Your task to perform on an android device: add a label to a message in the gmail app Image 0: 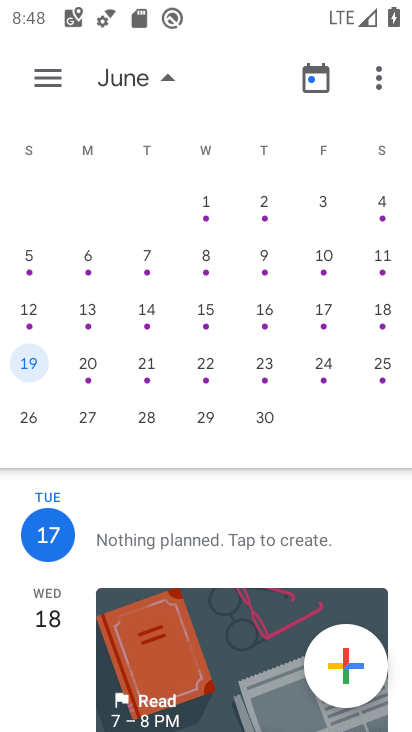
Step 0: press home button
Your task to perform on an android device: add a label to a message in the gmail app Image 1: 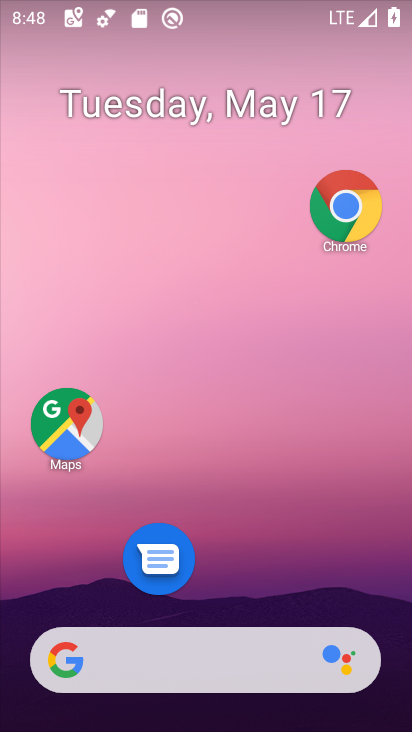
Step 1: drag from (213, 630) to (249, 229)
Your task to perform on an android device: add a label to a message in the gmail app Image 2: 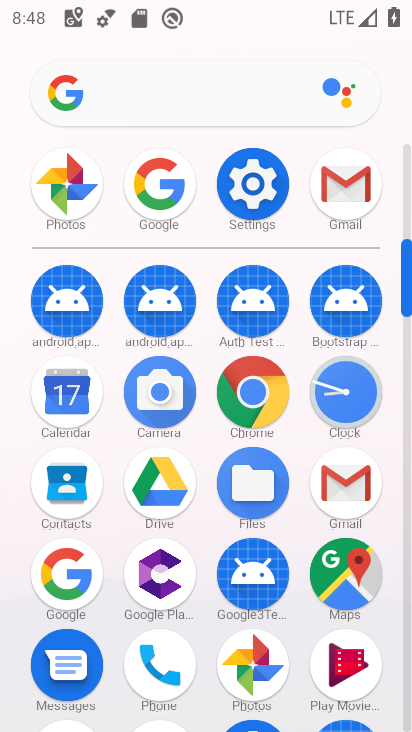
Step 2: click (359, 494)
Your task to perform on an android device: add a label to a message in the gmail app Image 3: 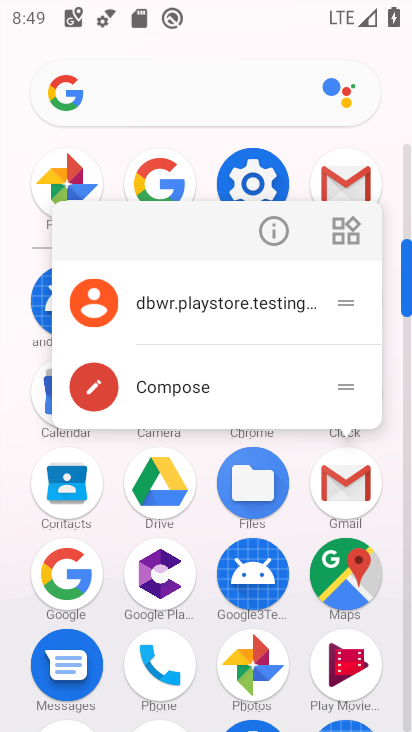
Step 3: click (368, 157)
Your task to perform on an android device: add a label to a message in the gmail app Image 4: 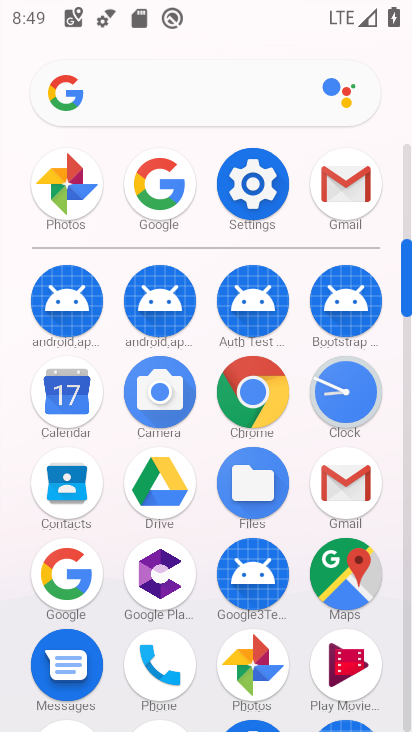
Step 4: click (349, 194)
Your task to perform on an android device: add a label to a message in the gmail app Image 5: 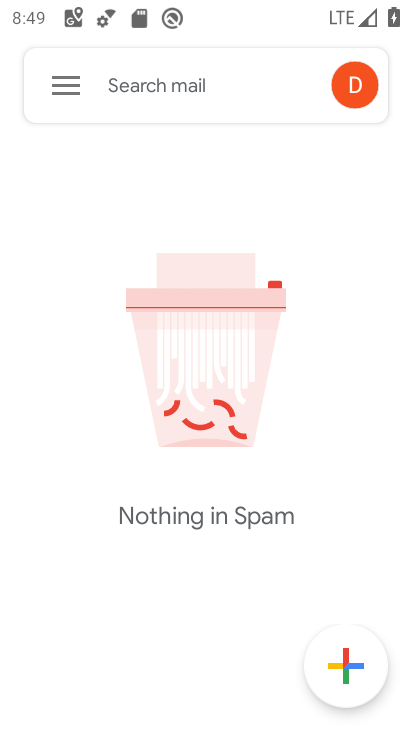
Step 5: click (71, 91)
Your task to perform on an android device: add a label to a message in the gmail app Image 6: 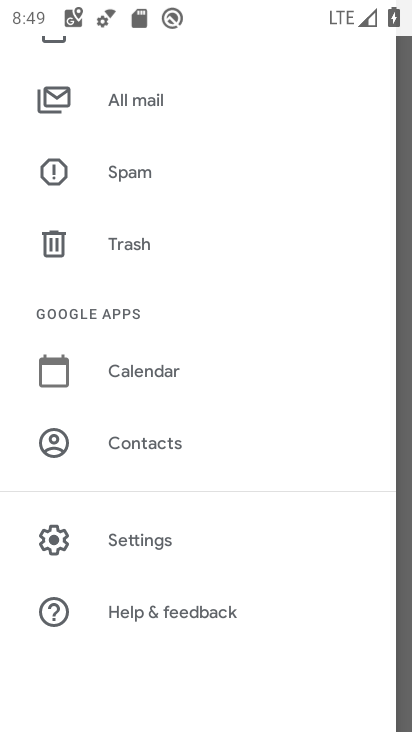
Step 6: click (205, 108)
Your task to perform on an android device: add a label to a message in the gmail app Image 7: 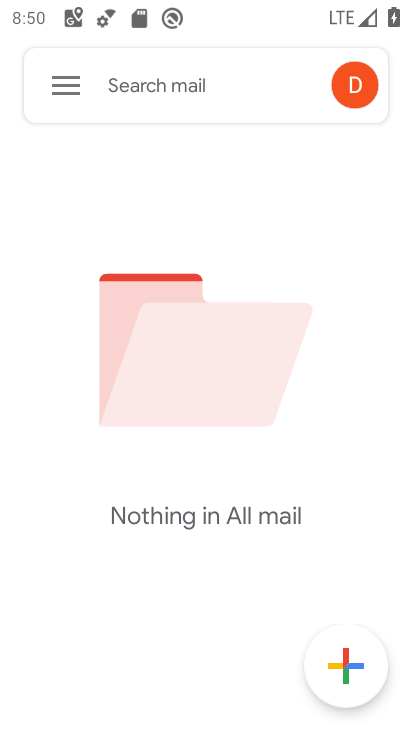
Step 7: task complete